Your task to perform on an android device: turn off improve location accuracy Image 0: 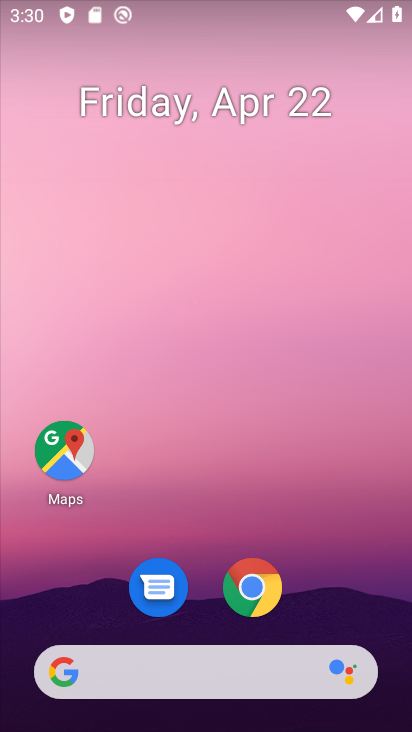
Step 0: drag from (323, 560) to (338, 8)
Your task to perform on an android device: turn off improve location accuracy Image 1: 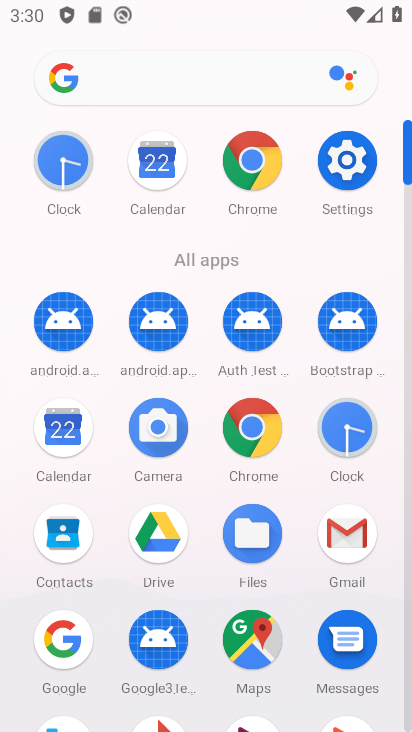
Step 1: click (348, 164)
Your task to perform on an android device: turn off improve location accuracy Image 2: 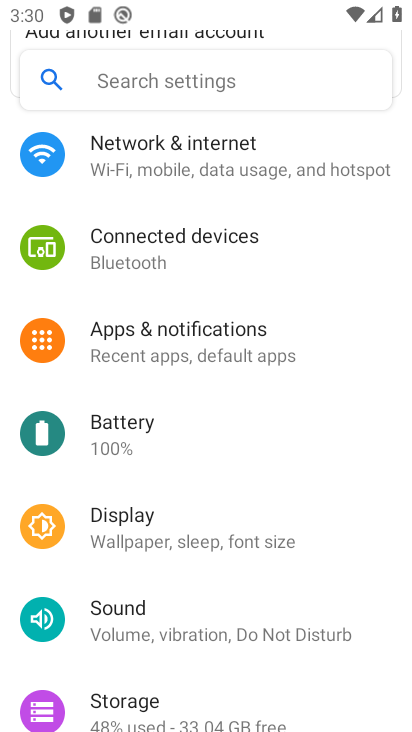
Step 2: drag from (238, 469) to (250, 320)
Your task to perform on an android device: turn off improve location accuracy Image 3: 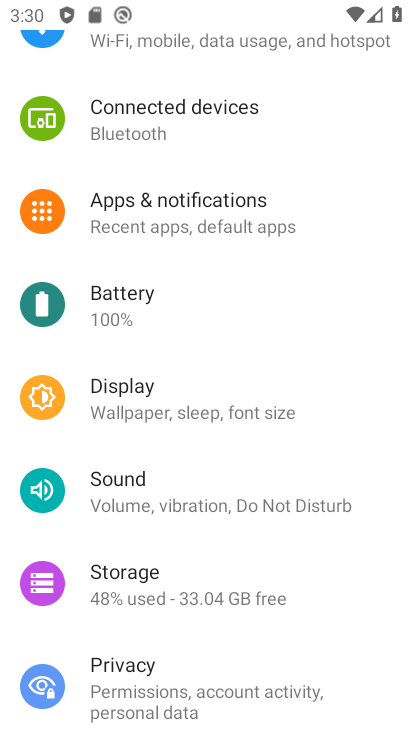
Step 3: drag from (235, 365) to (239, 261)
Your task to perform on an android device: turn off improve location accuracy Image 4: 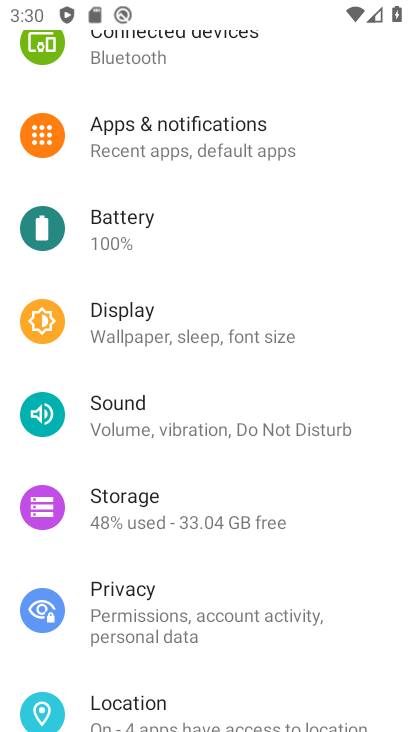
Step 4: drag from (185, 370) to (218, 276)
Your task to perform on an android device: turn off improve location accuracy Image 5: 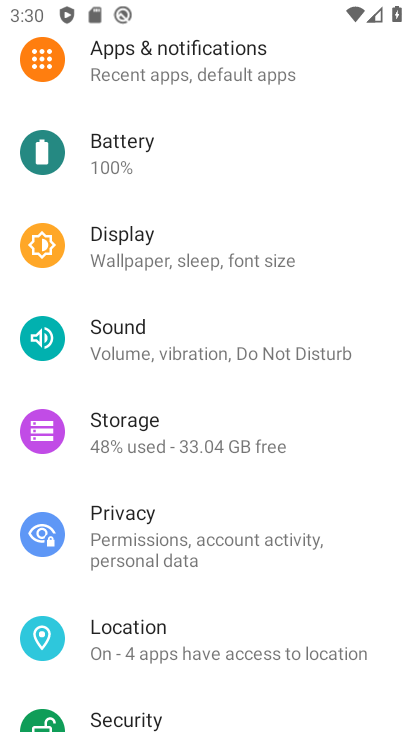
Step 5: drag from (182, 395) to (213, 285)
Your task to perform on an android device: turn off improve location accuracy Image 6: 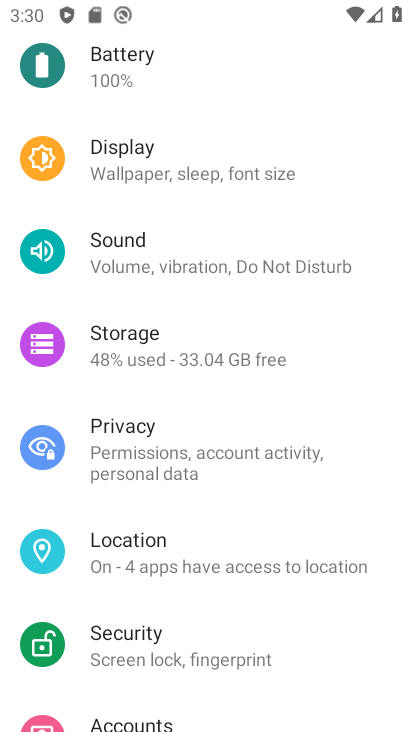
Step 6: drag from (182, 386) to (207, 274)
Your task to perform on an android device: turn off improve location accuracy Image 7: 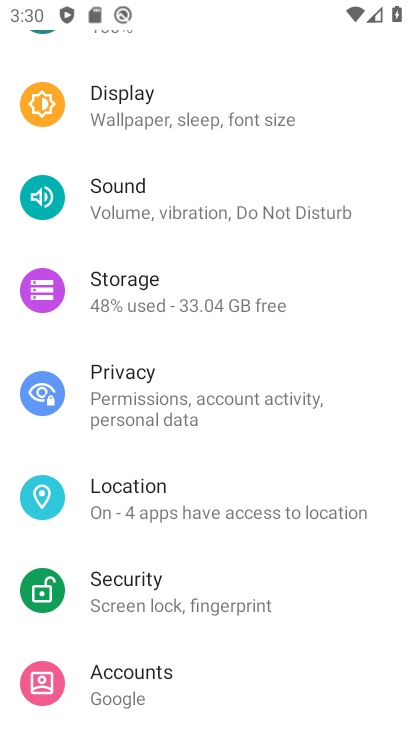
Step 7: drag from (184, 358) to (255, 196)
Your task to perform on an android device: turn off improve location accuracy Image 8: 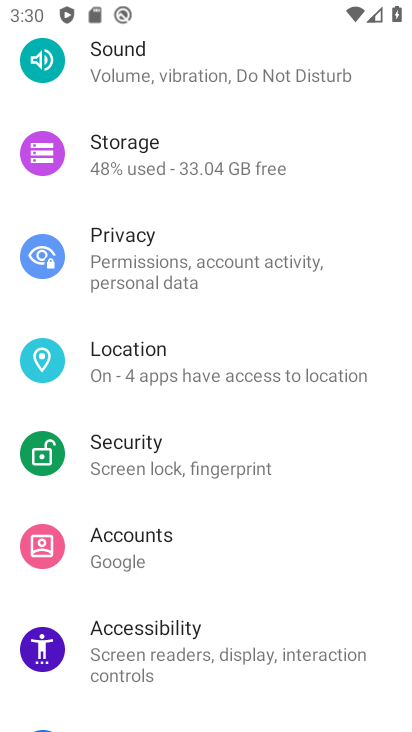
Step 8: click (204, 371)
Your task to perform on an android device: turn off improve location accuracy Image 9: 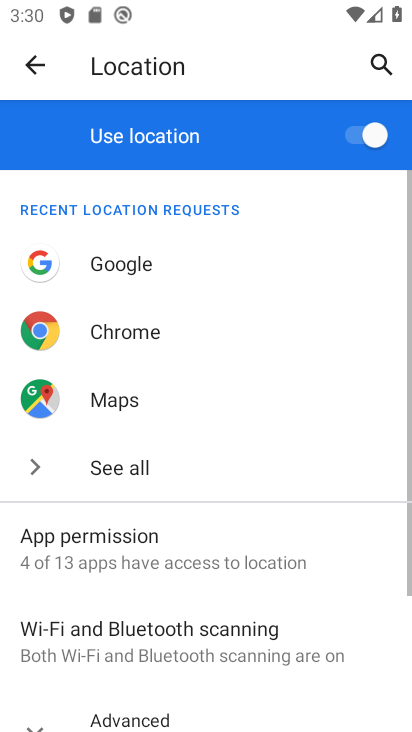
Step 9: drag from (213, 582) to (241, 365)
Your task to perform on an android device: turn off improve location accuracy Image 10: 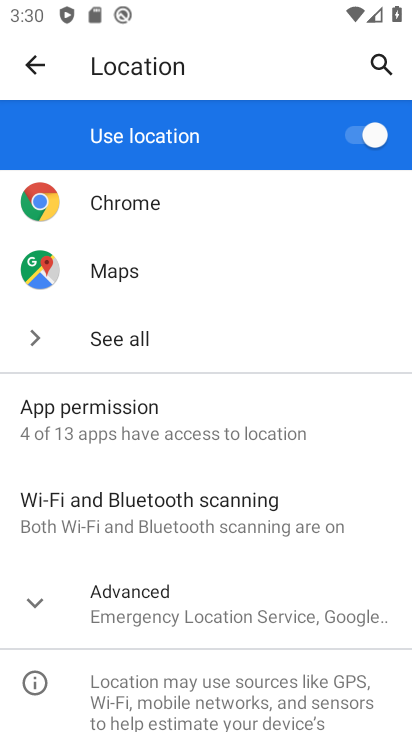
Step 10: click (248, 605)
Your task to perform on an android device: turn off improve location accuracy Image 11: 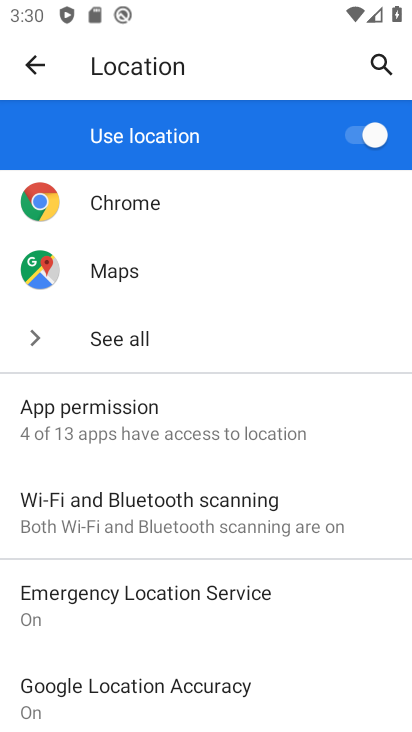
Step 11: drag from (194, 636) to (238, 475)
Your task to perform on an android device: turn off improve location accuracy Image 12: 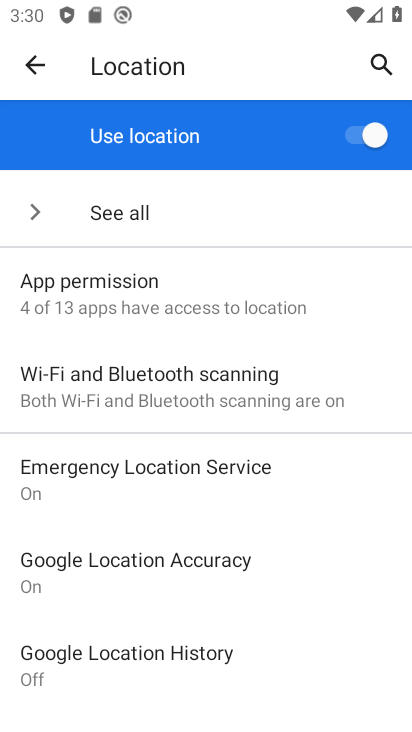
Step 12: click (177, 561)
Your task to perform on an android device: turn off improve location accuracy Image 13: 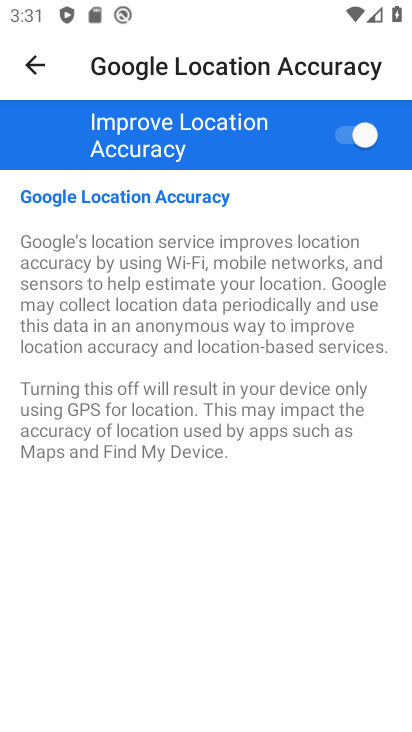
Step 13: click (365, 131)
Your task to perform on an android device: turn off improve location accuracy Image 14: 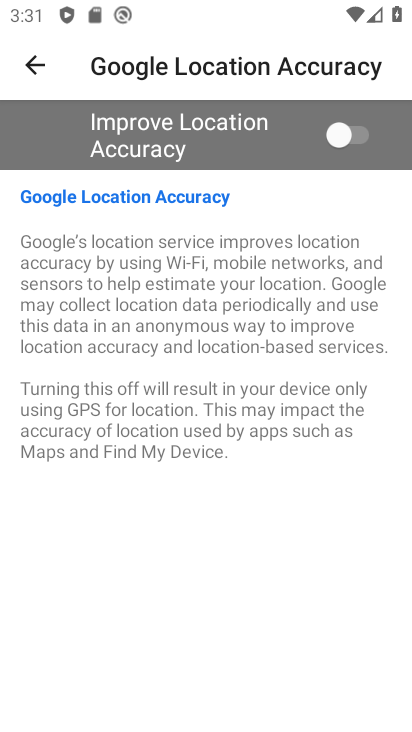
Step 14: task complete